Your task to perform on an android device: clear history in the chrome app Image 0: 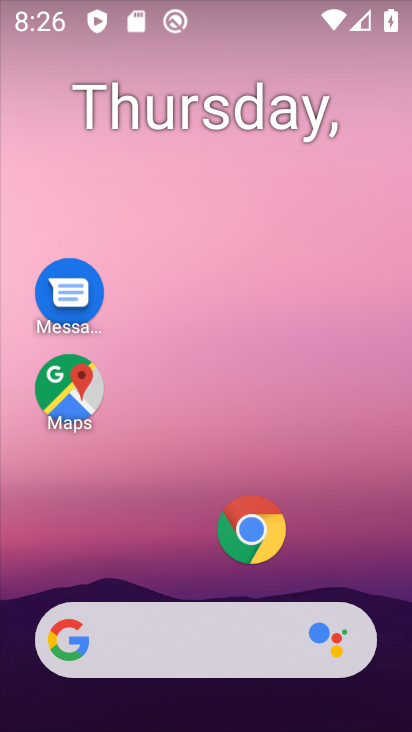
Step 0: click (253, 539)
Your task to perform on an android device: clear history in the chrome app Image 1: 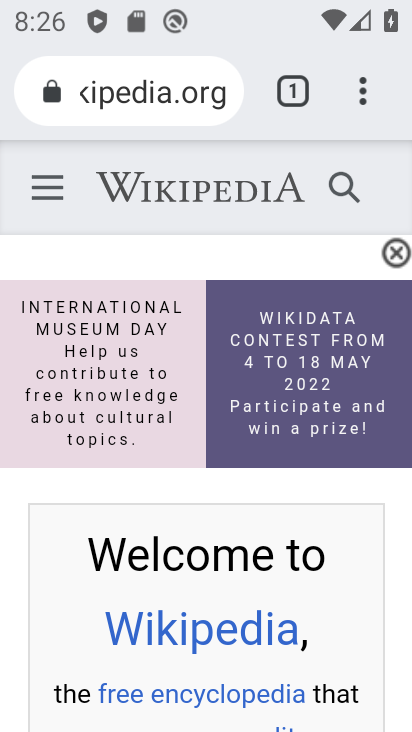
Step 1: click (358, 92)
Your task to perform on an android device: clear history in the chrome app Image 2: 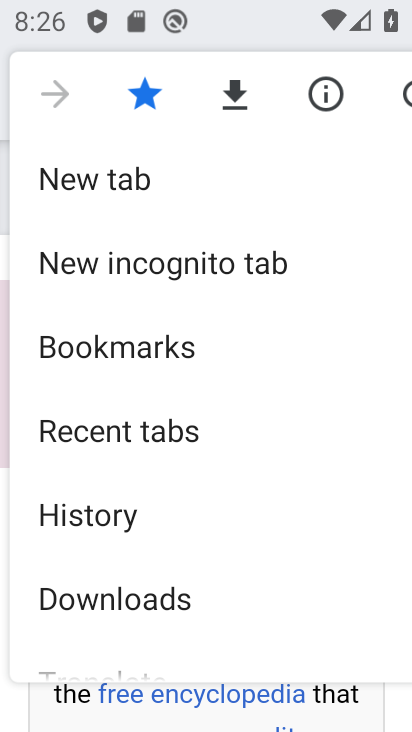
Step 2: click (125, 497)
Your task to perform on an android device: clear history in the chrome app Image 3: 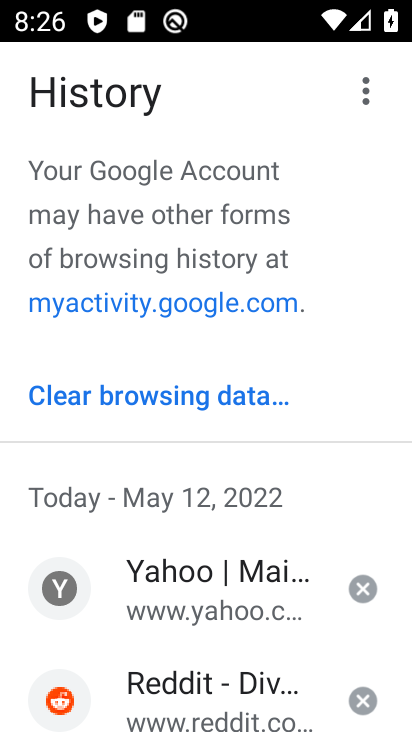
Step 3: click (163, 398)
Your task to perform on an android device: clear history in the chrome app Image 4: 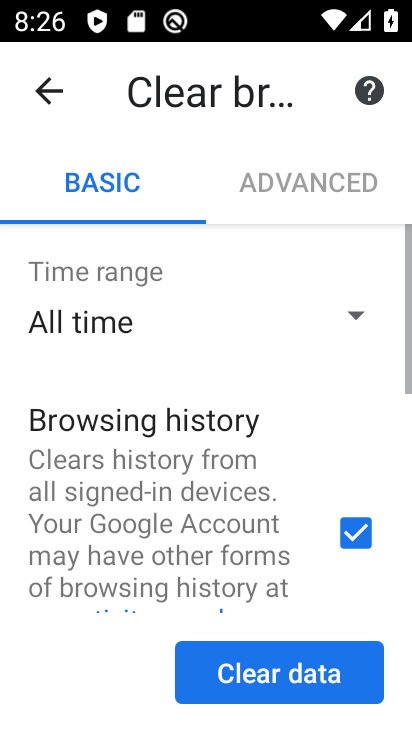
Step 4: click (300, 662)
Your task to perform on an android device: clear history in the chrome app Image 5: 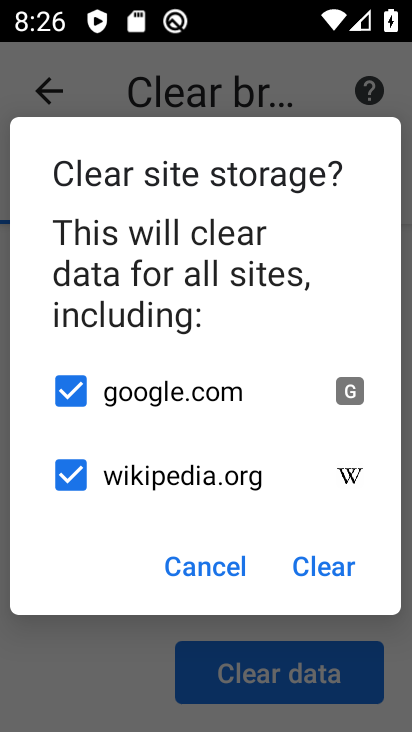
Step 5: click (328, 596)
Your task to perform on an android device: clear history in the chrome app Image 6: 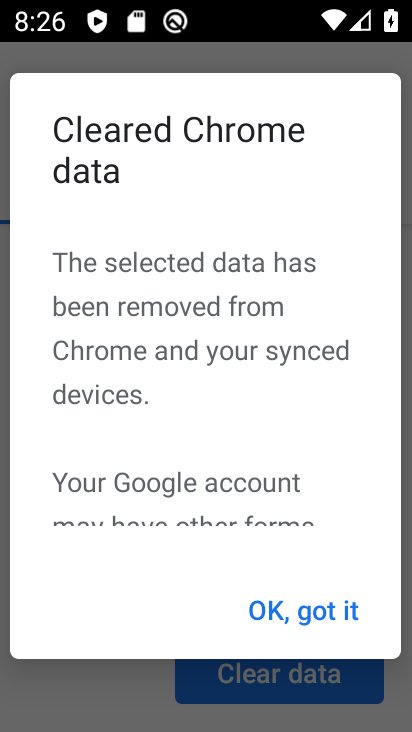
Step 6: click (348, 617)
Your task to perform on an android device: clear history in the chrome app Image 7: 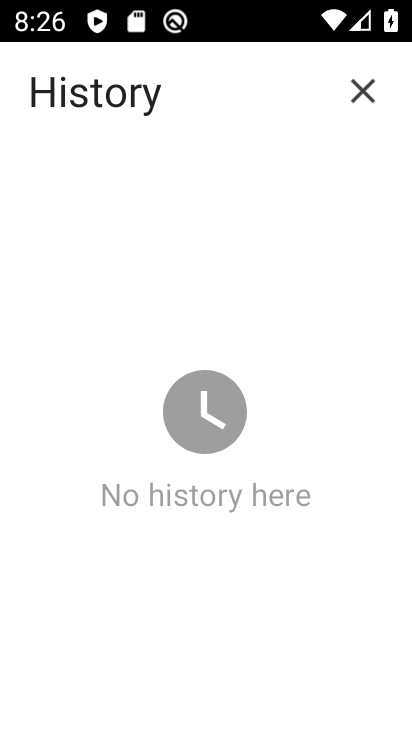
Step 7: task complete